Your task to perform on an android device: change notifications settings Image 0: 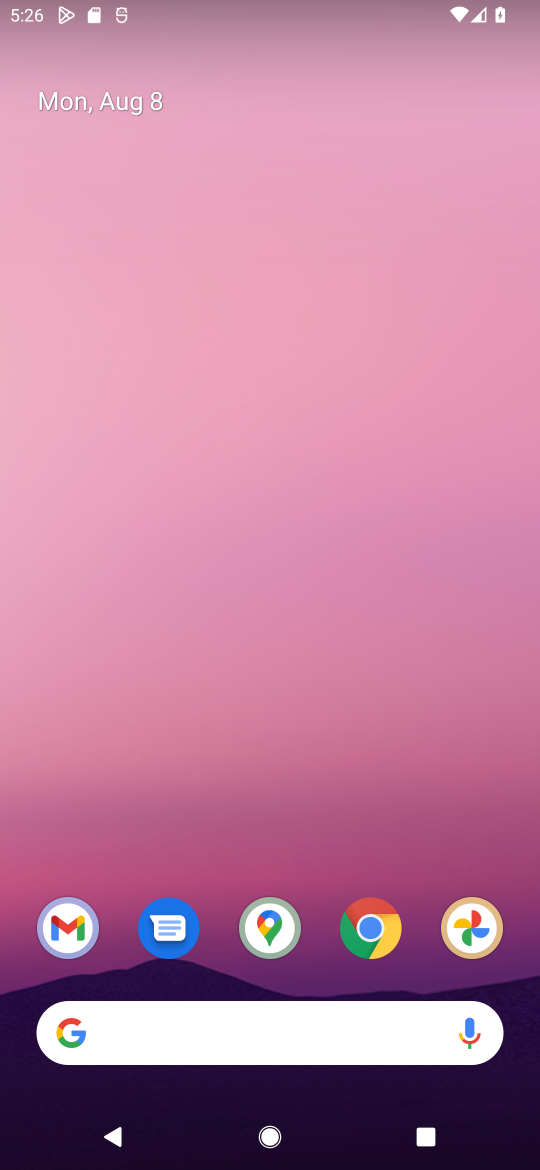
Step 0: drag from (223, 975) to (279, 3)
Your task to perform on an android device: change notifications settings Image 1: 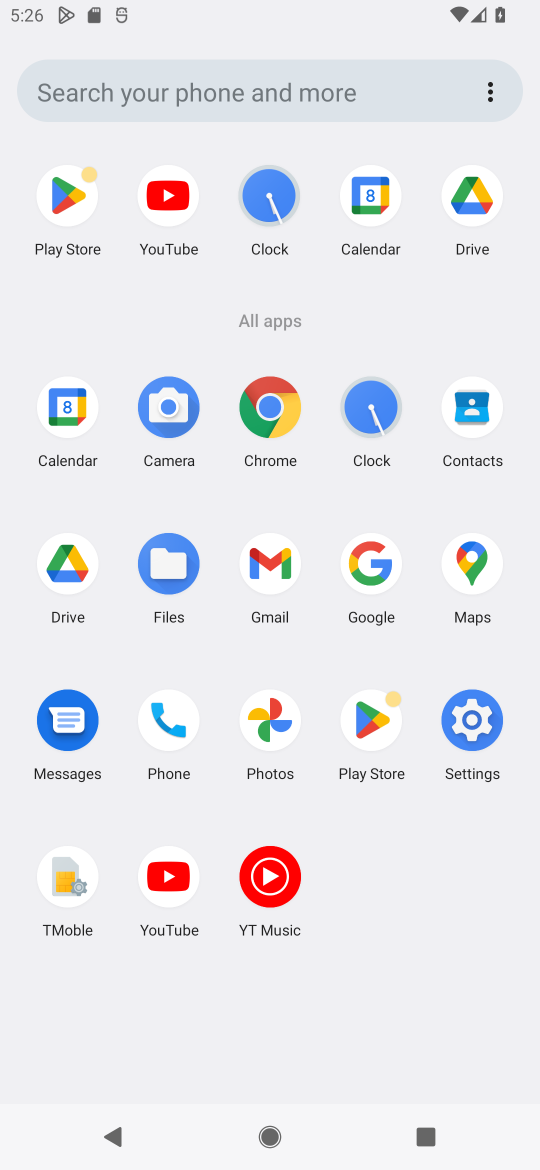
Step 1: click (477, 728)
Your task to perform on an android device: change notifications settings Image 2: 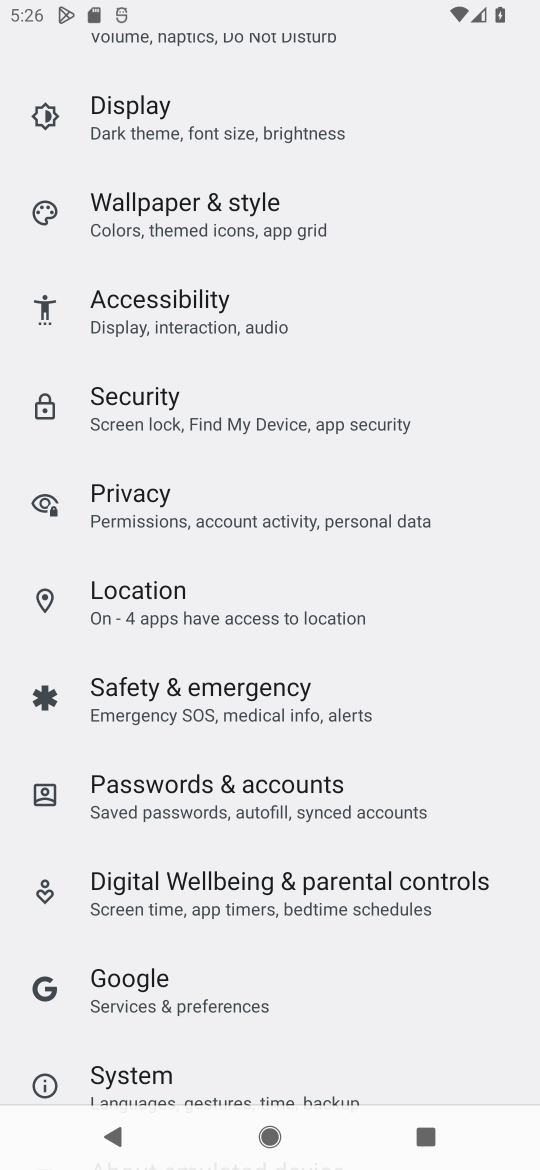
Step 2: drag from (215, 281) to (204, 765)
Your task to perform on an android device: change notifications settings Image 3: 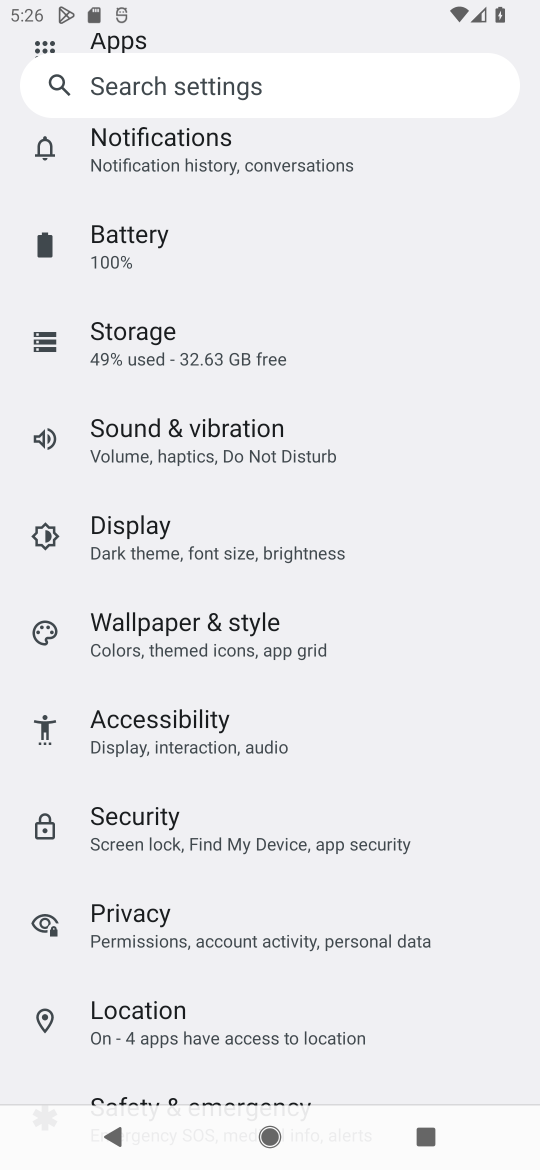
Step 3: drag from (247, 469) to (262, 684)
Your task to perform on an android device: change notifications settings Image 4: 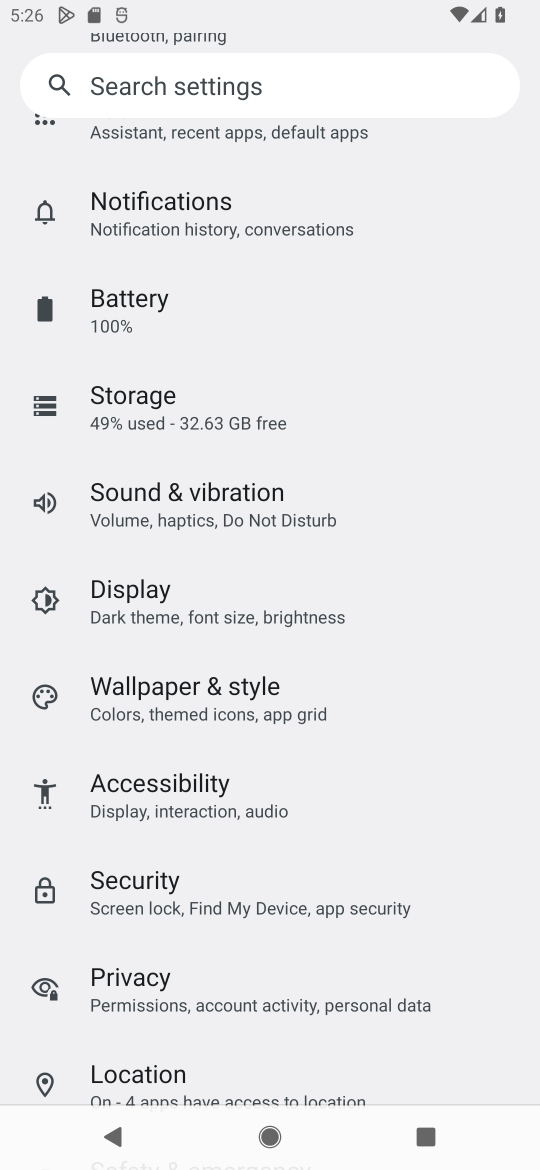
Step 4: click (192, 216)
Your task to perform on an android device: change notifications settings Image 5: 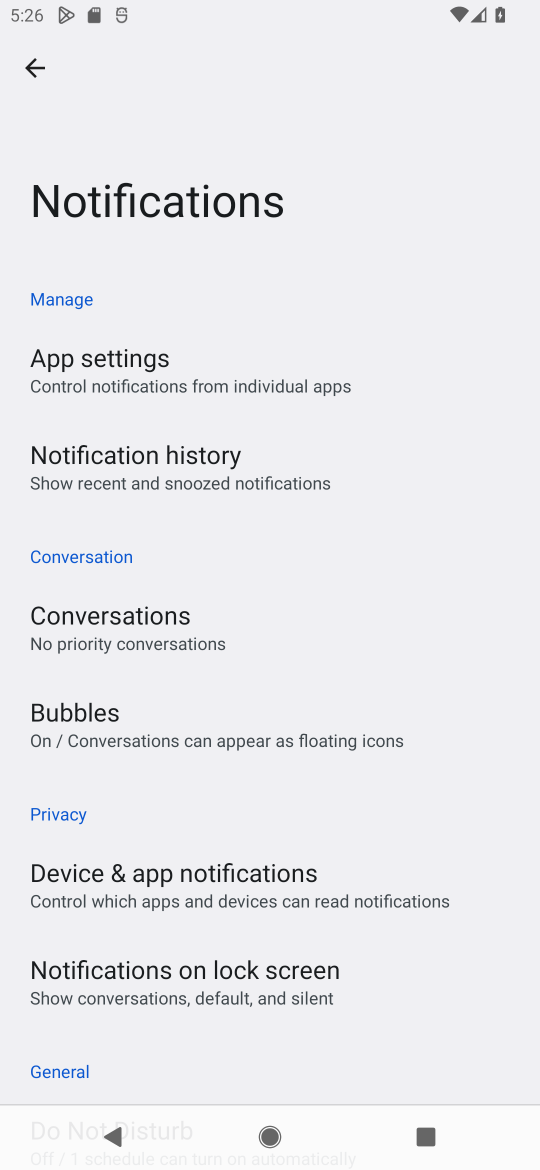
Step 5: drag from (252, 829) to (293, 435)
Your task to perform on an android device: change notifications settings Image 6: 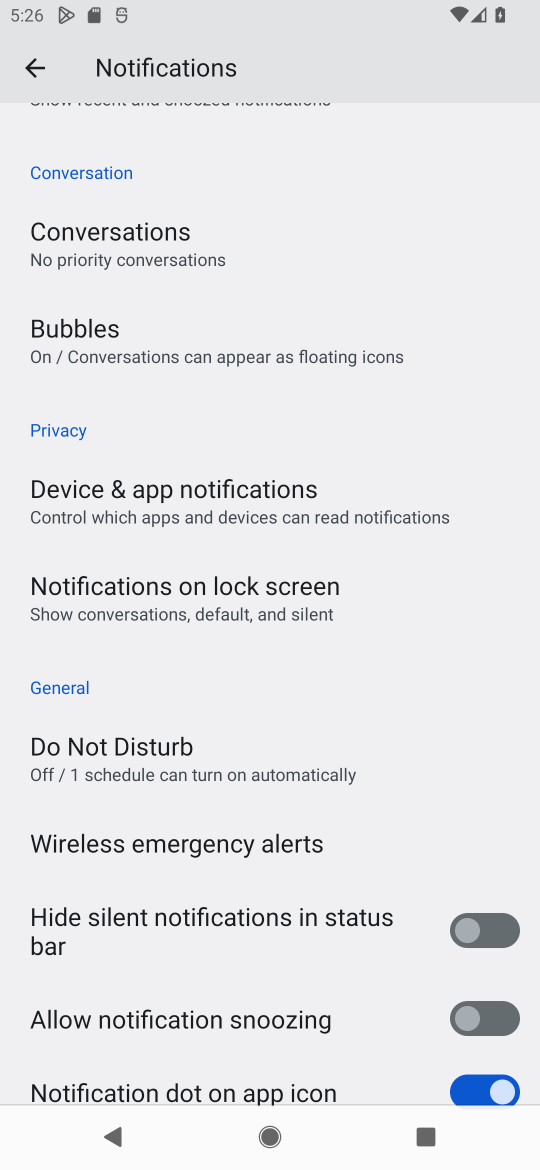
Step 6: drag from (228, 852) to (268, 222)
Your task to perform on an android device: change notifications settings Image 7: 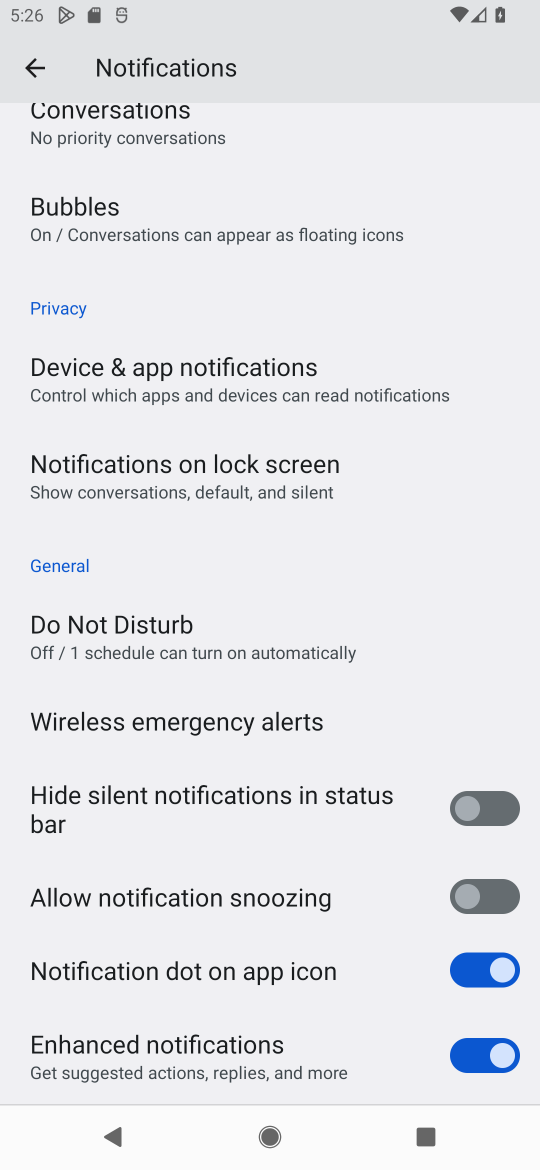
Step 7: drag from (240, 925) to (227, 633)
Your task to perform on an android device: change notifications settings Image 8: 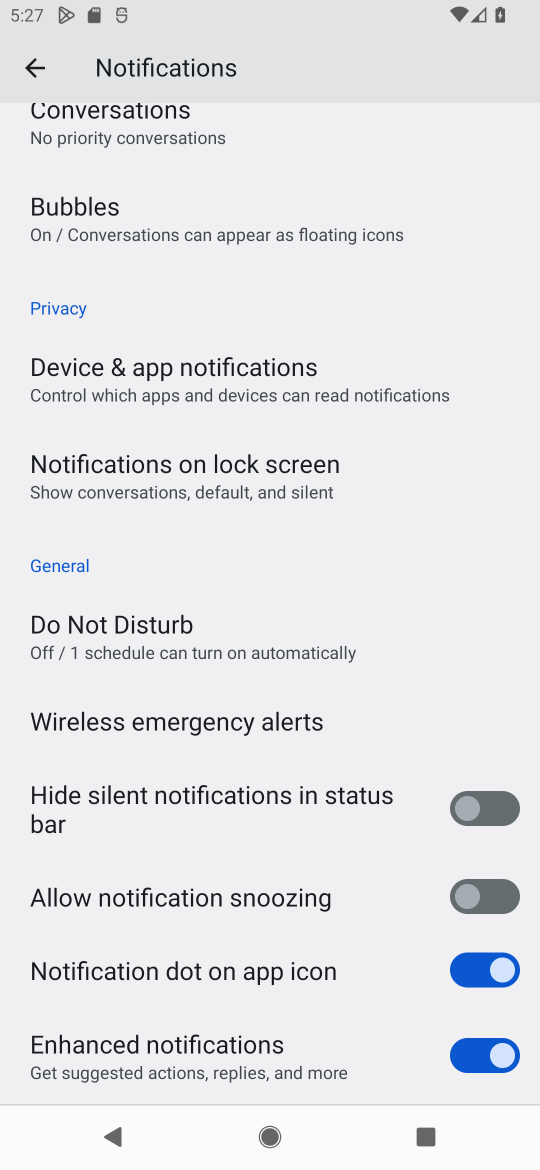
Step 8: drag from (254, 545) to (267, 811)
Your task to perform on an android device: change notifications settings Image 9: 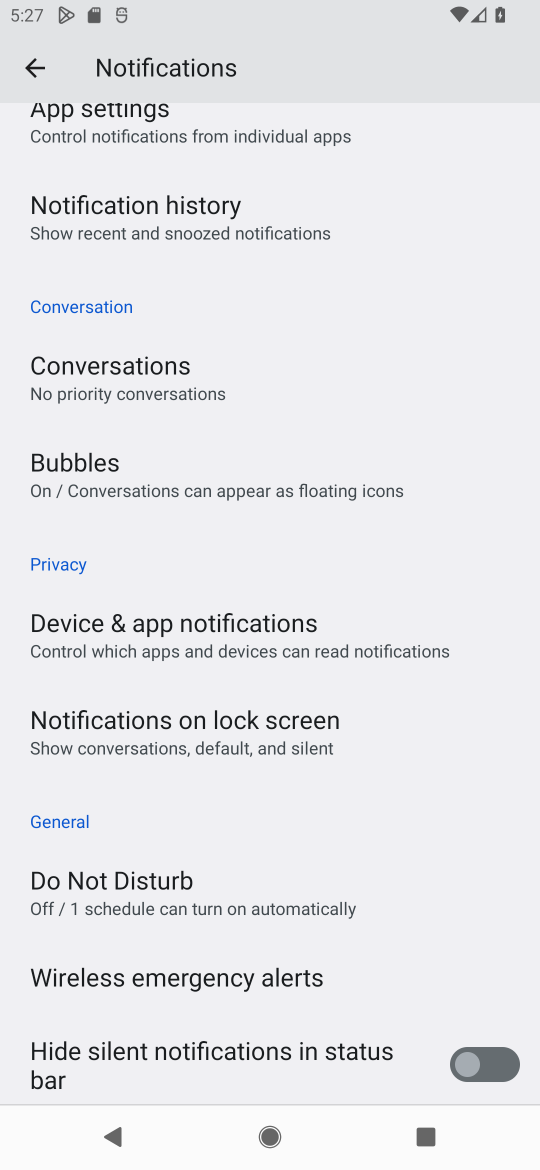
Step 9: drag from (281, 378) to (285, 853)
Your task to perform on an android device: change notifications settings Image 10: 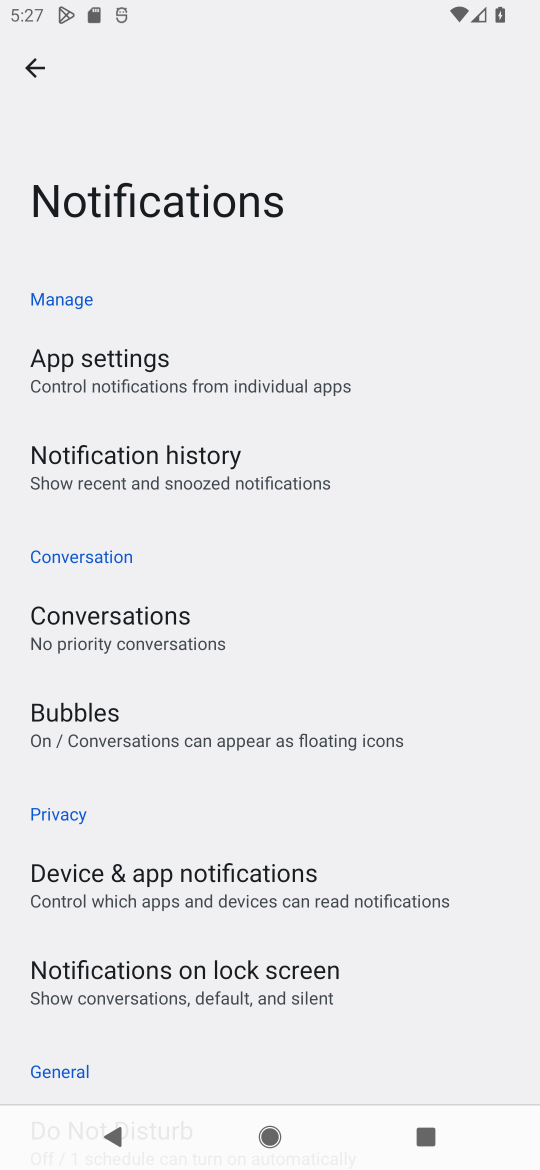
Step 10: click (207, 377)
Your task to perform on an android device: change notifications settings Image 11: 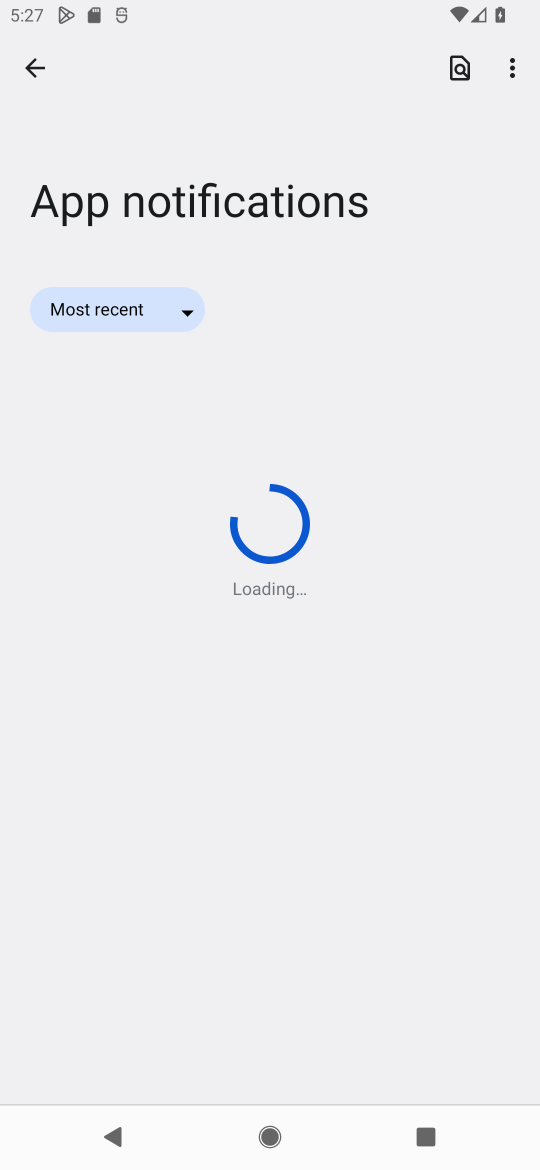
Step 11: click (27, 59)
Your task to perform on an android device: change notifications settings Image 12: 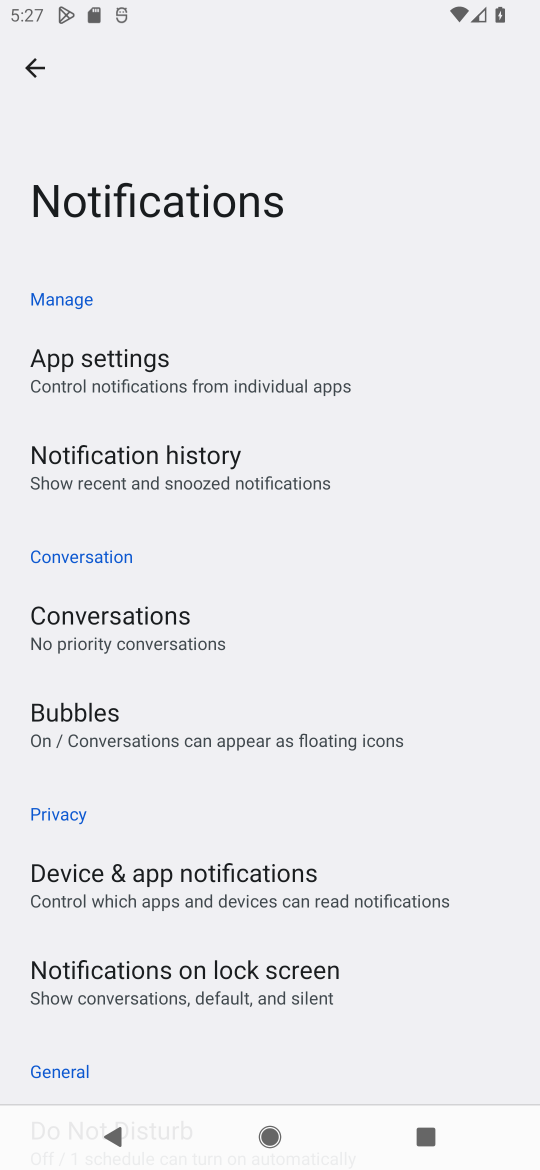
Step 12: click (163, 386)
Your task to perform on an android device: change notifications settings Image 13: 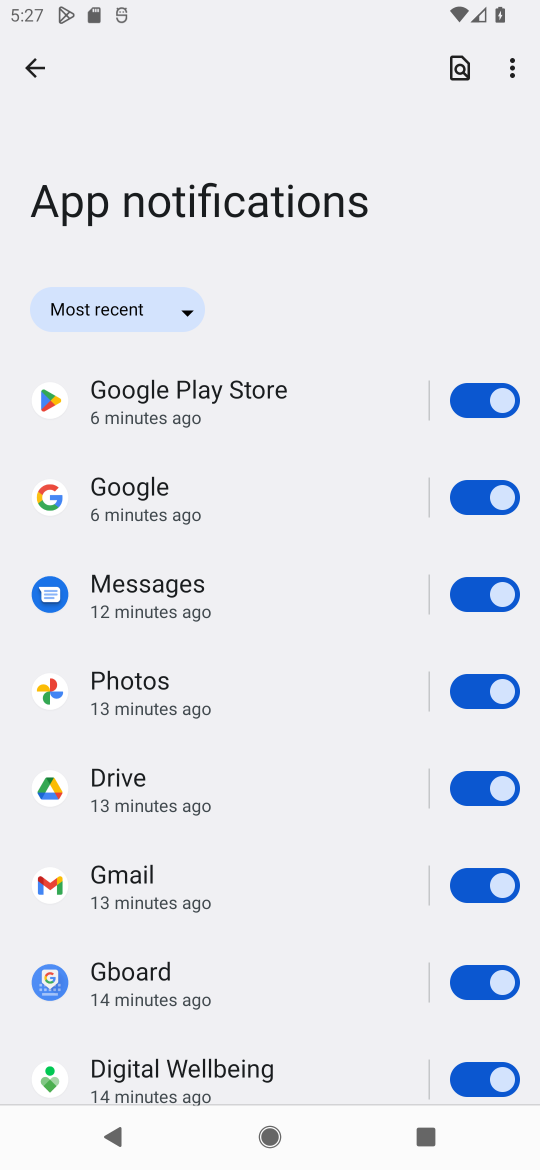
Step 13: click (467, 397)
Your task to perform on an android device: change notifications settings Image 14: 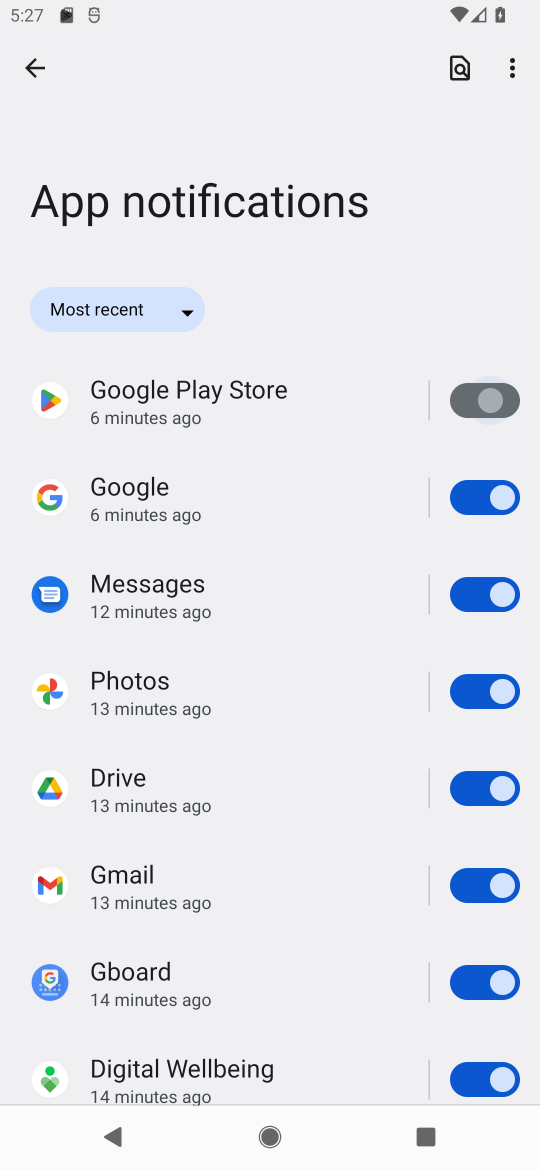
Step 14: click (467, 489)
Your task to perform on an android device: change notifications settings Image 15: 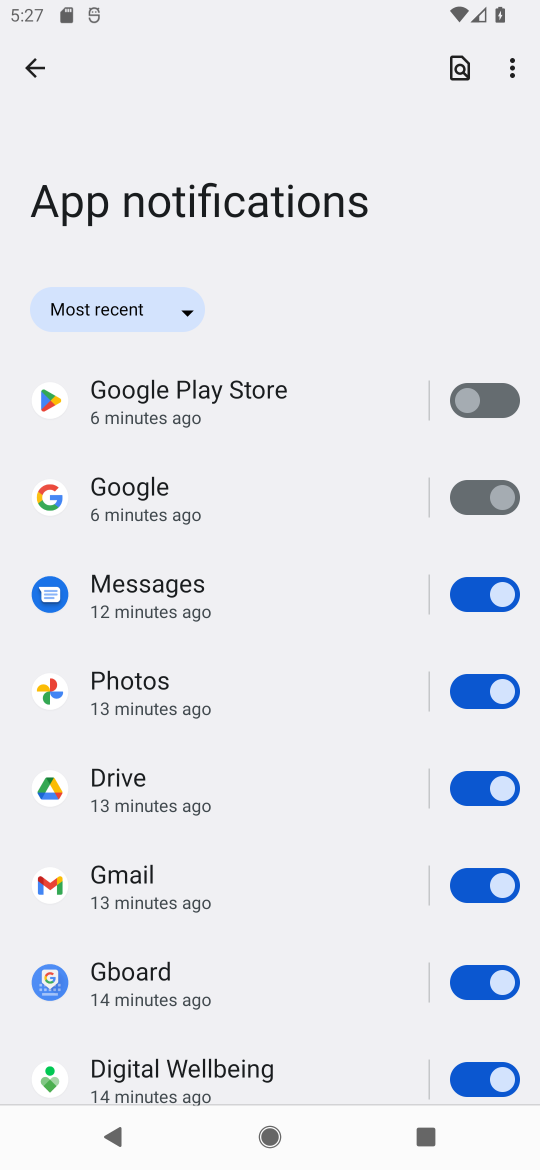
Step 15: click (454, 590)
Your task to perform on an android device: change notifications settings Image 16: 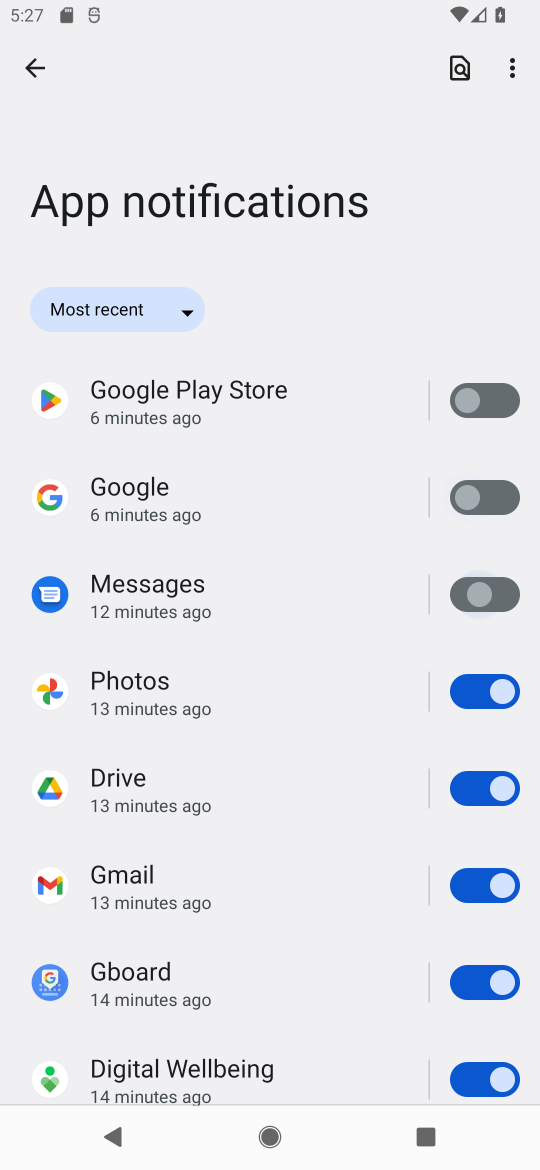
Step 16: click (442, 695)
Your task to perform on an android device: change notifications settings Image 17: 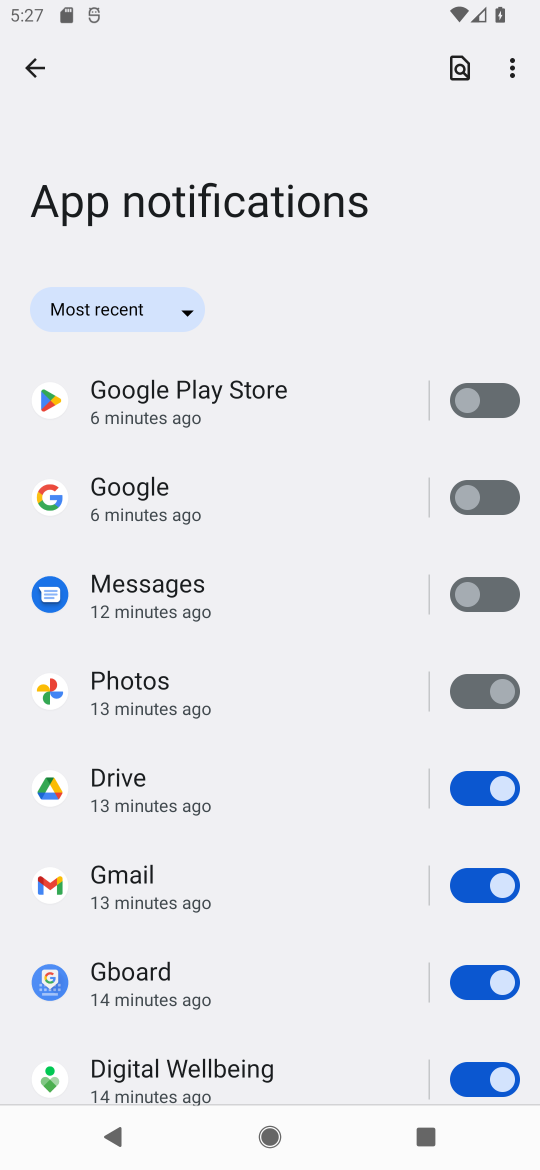
Step 17: click (473, 805)
Your task to perform on an android device: change notifications settings Image 18: 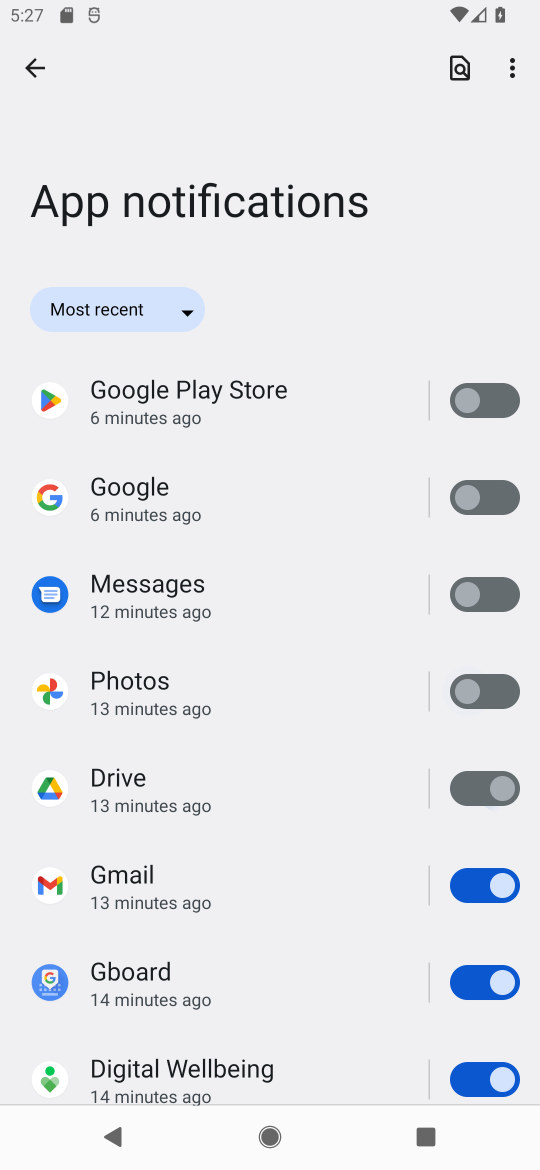
Step 18: click (459, 882)
Your task to perform on an android device: change notifications settings Image 19: 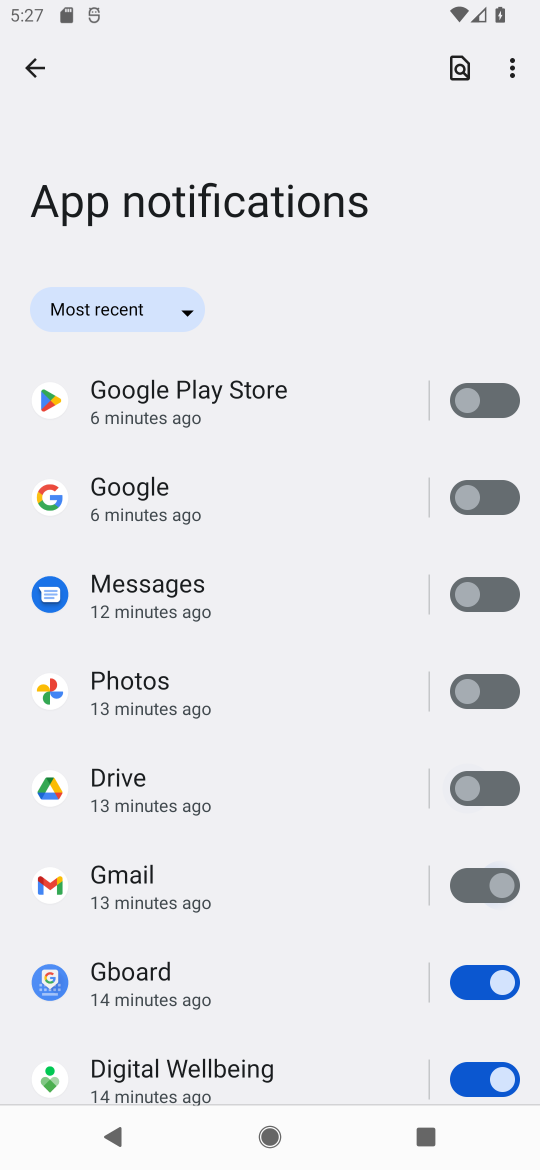
Step 19: click (454, 970)
Your task to perform on an android device: change notifications settings Image 20: 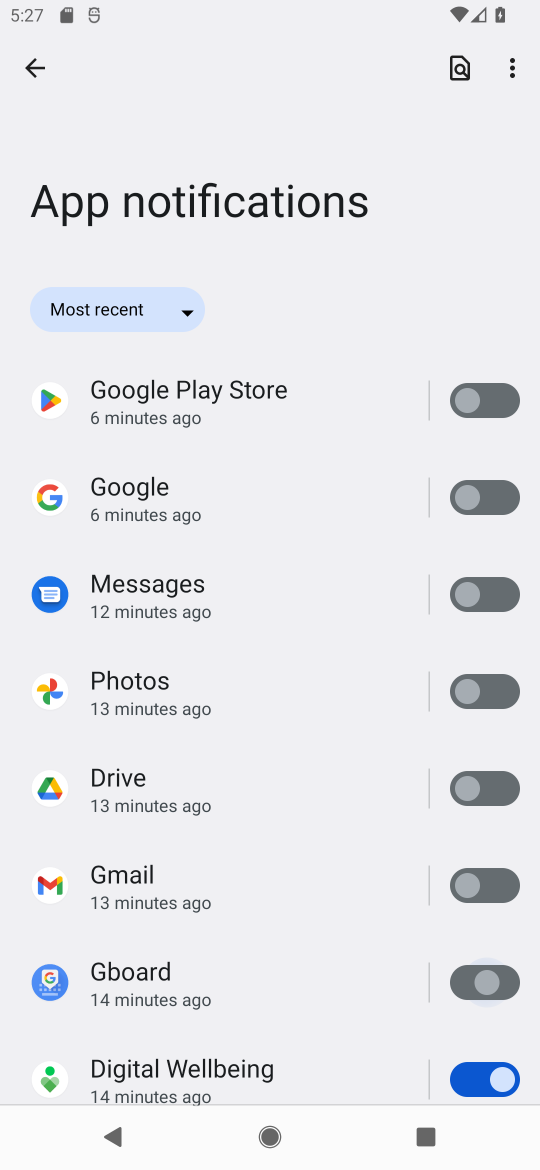
Step 20: click (444, 1095)
Your task to perform on an android device: change notifications settings Image 21: 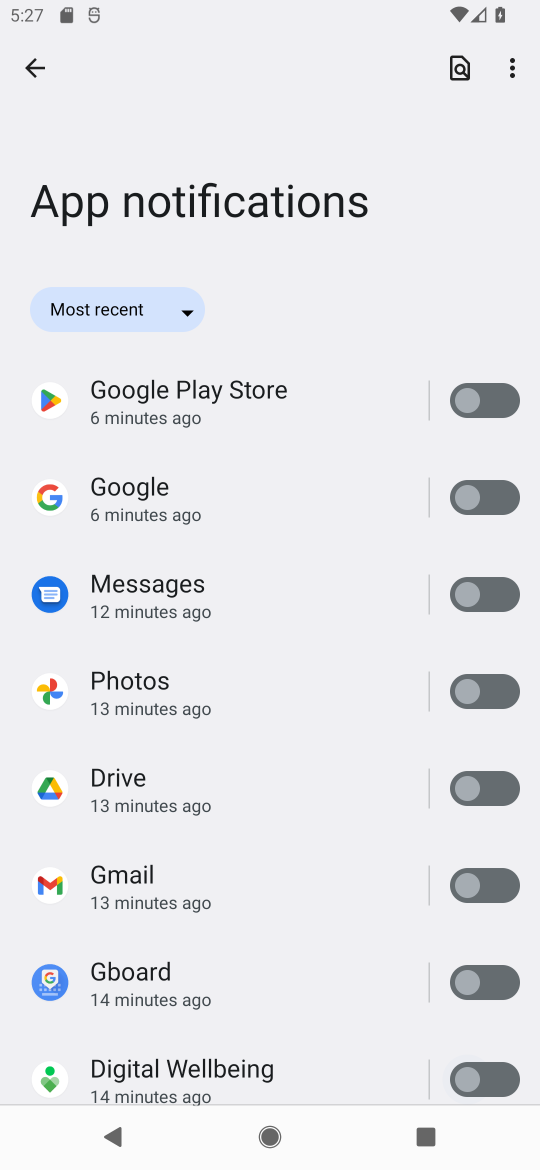
Step 21: task complete